Your task to perform on an android device: Open Reddit.com Image 0: 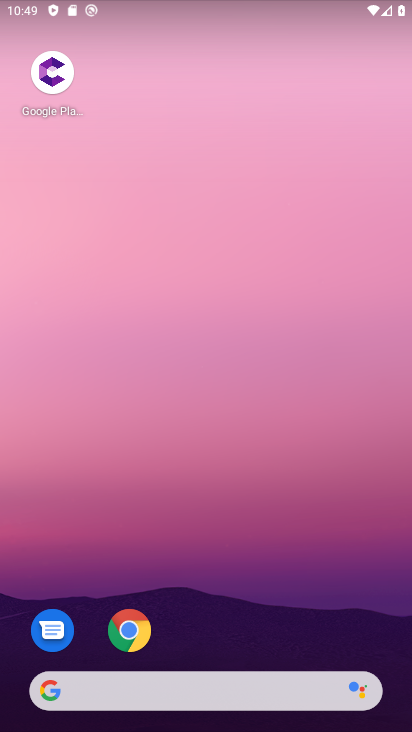
Step 0: click (125, 632)
Your task to perform on an android device: Open Reddit.com Image 1: 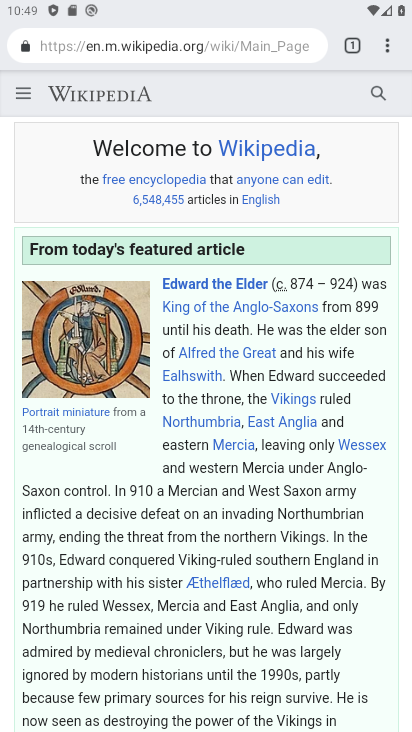
Step 1: click (256, 38)
Your task to perform on an android device: Open Reddit.com Image 2: 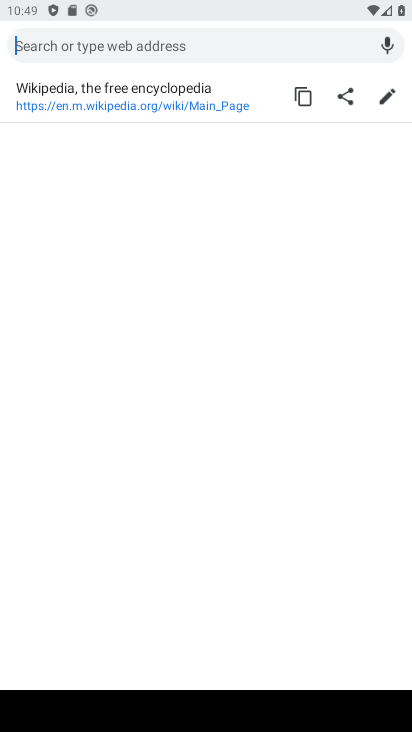
Step 2: type "Reddit.com"
Your task to perform on an android device: Open Reddit.com Image 3: 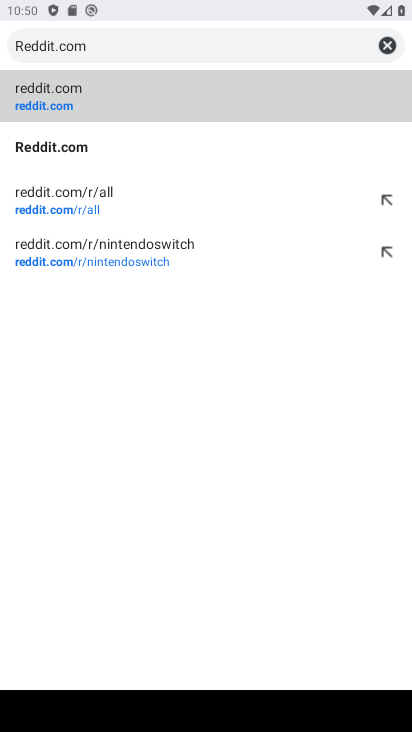
Step 3: click (168, 101)
Your task to perform on an android device: Open Reddit.com Image 4: 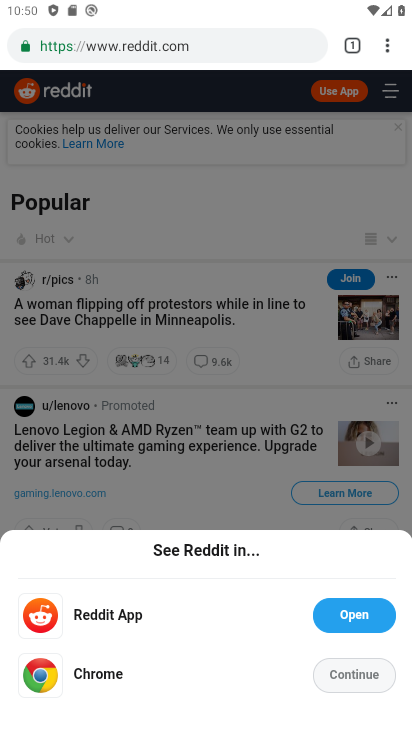
Step 4: task complete